Your task to perform on an android device: open app "Spotify: Music and Podcasts" (install if not already installed) and enter user name: "principled@inbox.com" and password: "arrests" Image 0: 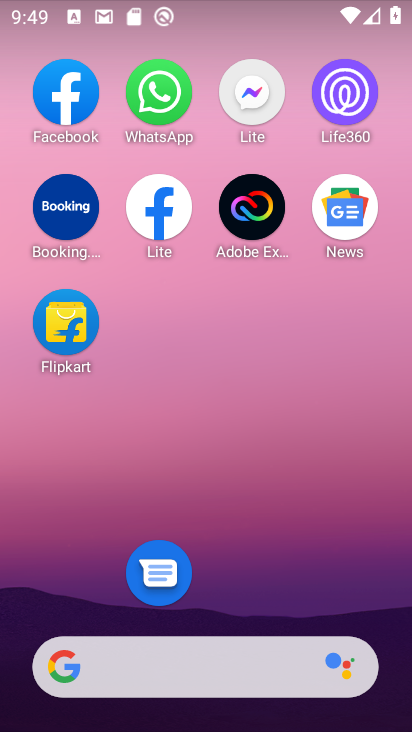
Step 0: drag from (245, 575) to (230, 189)
Your task to perform on an android device: open app "Spotify: Music and Podcasts" (install if not already installed) and enter user name: "principled@inbox.com" and password: "arrests" Image 1: 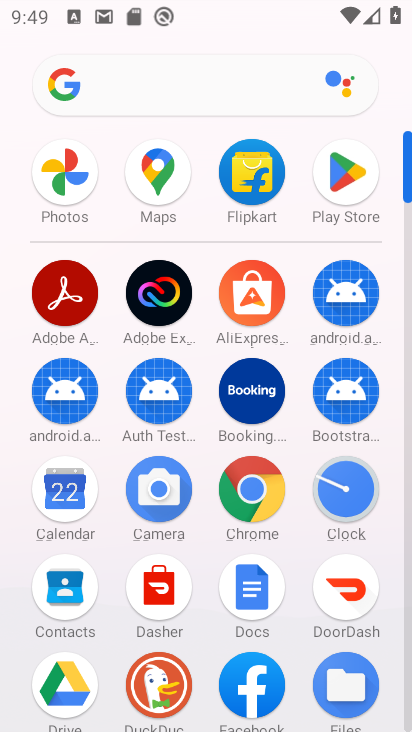
Step 1: click (345, 162)
Your task to perform on an android device: open app "Spotify: Music and Podcasts" (install if not already installed) and enter user name: "principled@inbox.com" and password: "arrests" Image 2: 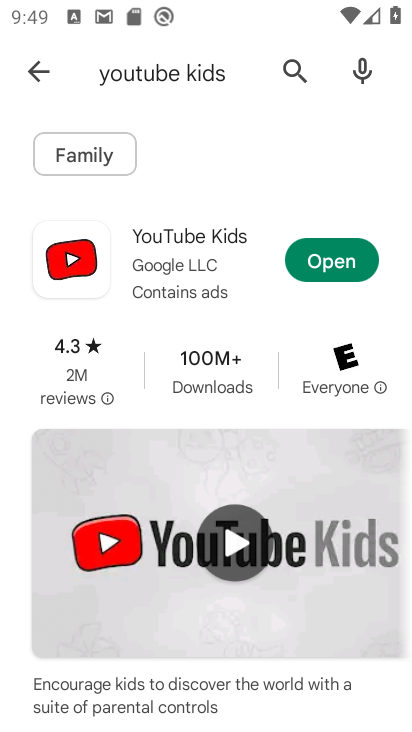
Step 2: click (148, 65)
Your task to perform on an android device: open app "Spotify: Music and Podcasts" (install if not already installed) and enter user name: "principled@inbox.com" and password: "arrests" Image 3: 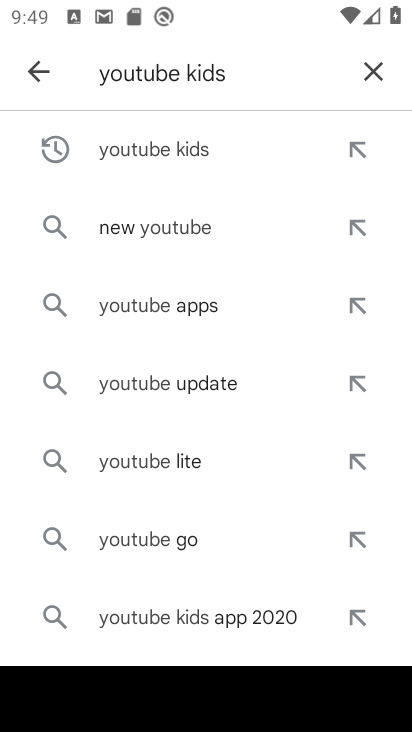
Step 3: click (374, 68)
Your task to perform on an android device: open app "Spotify: Music and Podcasts" (install if not already installed) and enter user name: "principled@inbox.com" and password: "arrests" Image 4: 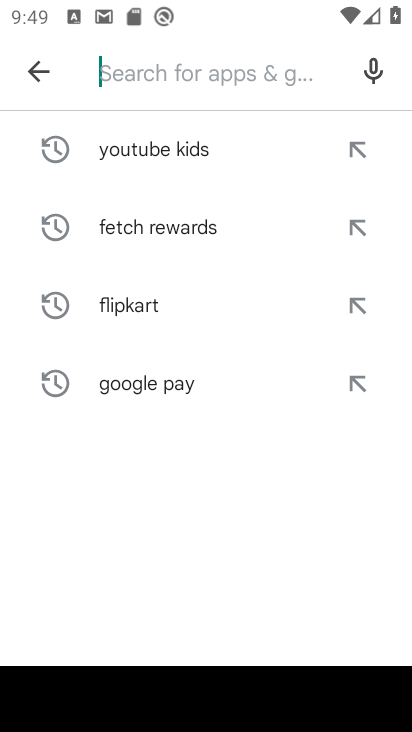
Step 4: type "spotify"
Your task to perform on an android device: open app "Spotify: Music and Podcasts" (install if not already installed) and enter user name: "principled@inbox.com" and password: "arrests" Image 5: 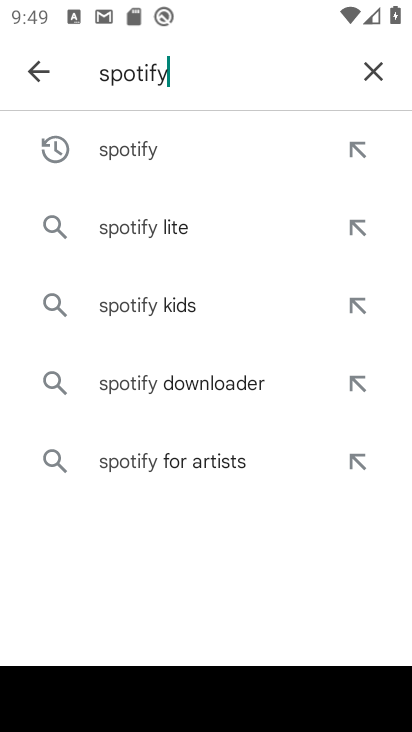
Step 5: click (161, 149)
Your task to perform on an android device: open app "Spotify: Music and Podcasts" (install if not already installed) and enter user name: "principled@inbox.com" and password: "arrests" Image 6: 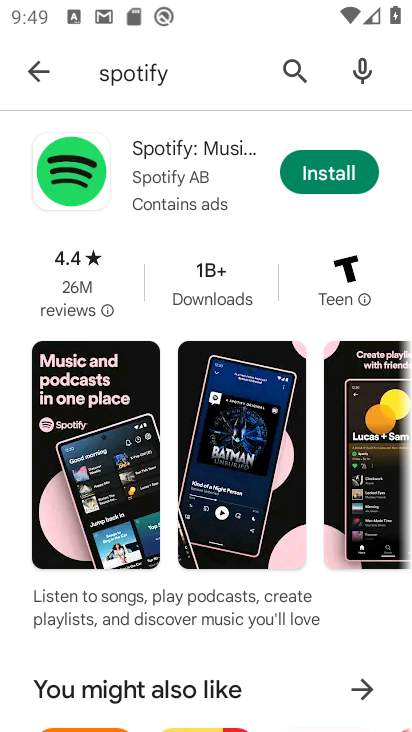
Step 6: click (320, 179)
Your task to perform on an android device: open app "Spotify: Music and Podcasts" (install if not already installed) and enter user name: "principled@inbox.com" and password: "arrests" Image 7: 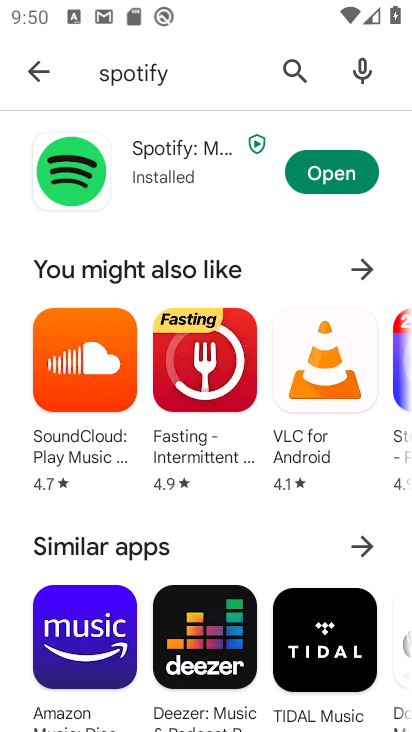
Step 7: click (353, 177)
Your task to perform on an android device: open app "Spotify: Music and Podcasts" (install if not already installed) and enter user name: "principled@inbox.com" and password: "arrests" Image 8: 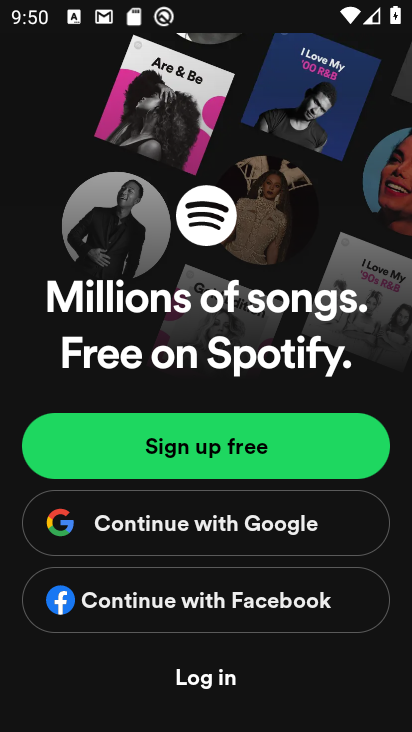
Step 8: click (224, 680)
Your task to perform on an android device: open app "Spotify: Music and Podcasts" (install if not already installed) and enter user name: "principled@inbox.com" and password: "arrests" Image 9: 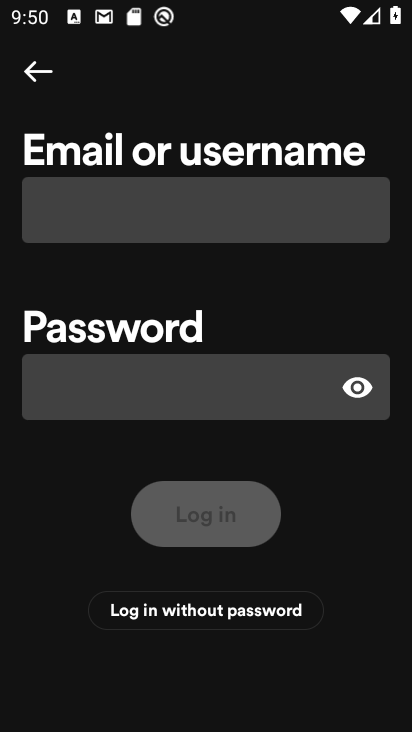
Step 9: click (227, 225)
Your task to perform on an android device: open app "Spotify: Music and Podcasts" (install if not already installed) and enter user name: "principled@inbox.com" and password: "arrests" Image 10: 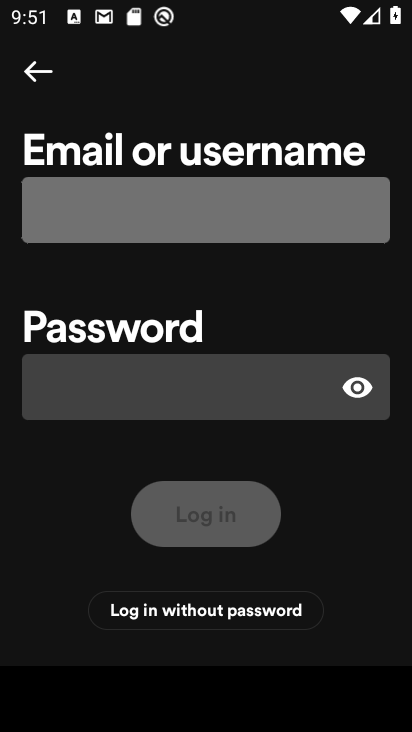
Step 10: type "principled@inbox.com"
Your task to perform on an android device: open app "Spotify: Music and Podcasts" (install if not already installed) and enter user name: "principled@inbox.com" and password: "arrests" Image 11: 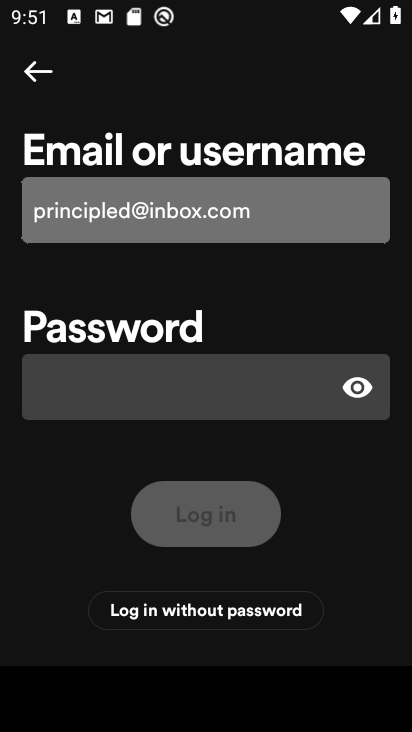
Step 11: click (239, 410)
Your task to perform on an android device: open app "Spotify: Music and Podcasts" (install if not already installed) and enter user name: "principled@inbox.com" and password: "arrests" Image 12: 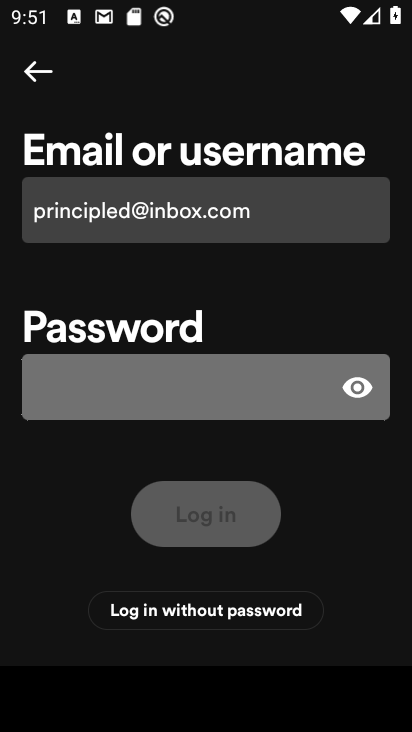
Step 12: type "arrests"
Your task to perform on an android device: open app "Spotify: Music and Podcasts" (install if not already installed) and enter user name: "principled@inbox.com" and password: "arrests" Image 13: 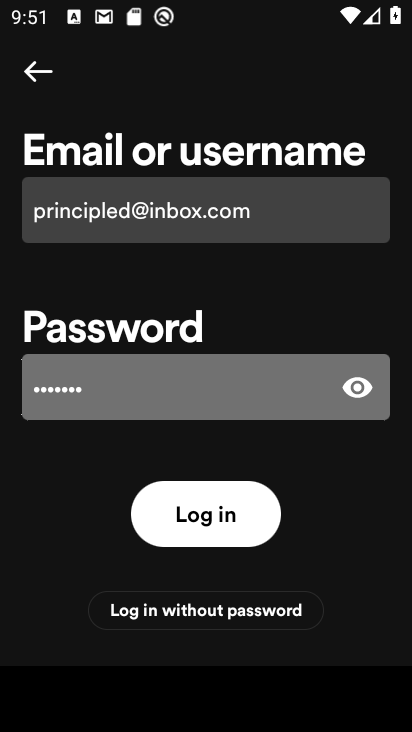
Step 13: click (193, 536)
Your task to perform on an android device: open app "Spotify: Music and Podcasts" (install if not already installed) and enter user name: "principled@inbox.com" and password: "arrests" Image 14: 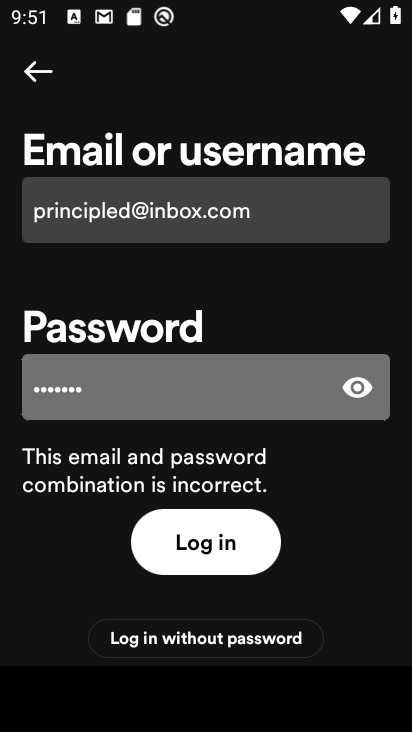
Step 14: task complete